Your task to perform on an android device: add a contact in the contacts app Image 0: 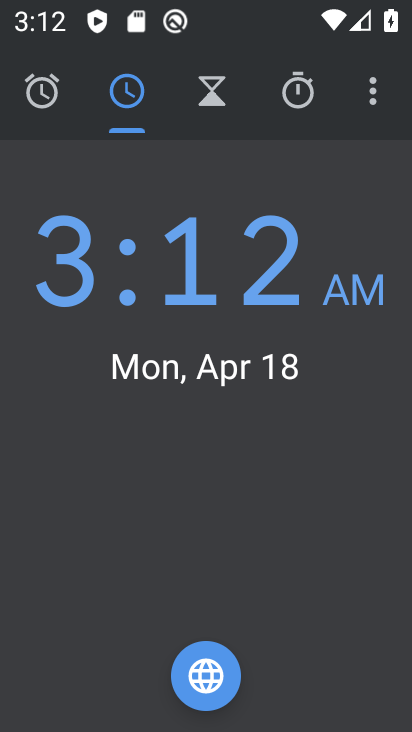
Step 0: press home button
Your task to perform on an android device: add a contact in the contacts app Image 1: 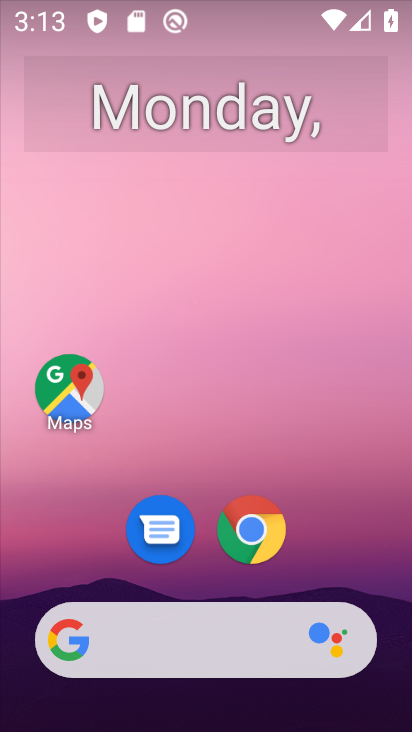
Step 1: drag from (246, 458) to (253, 11)
Your task to perform on an android device: add a contact in the contacts app Image 2: 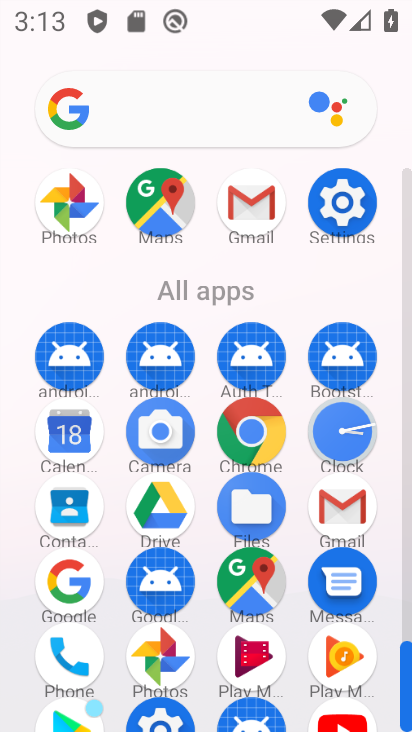
Step 2: click (71, 516)
Your task to perform on an android device: add a contact in the contacts app Image 3: 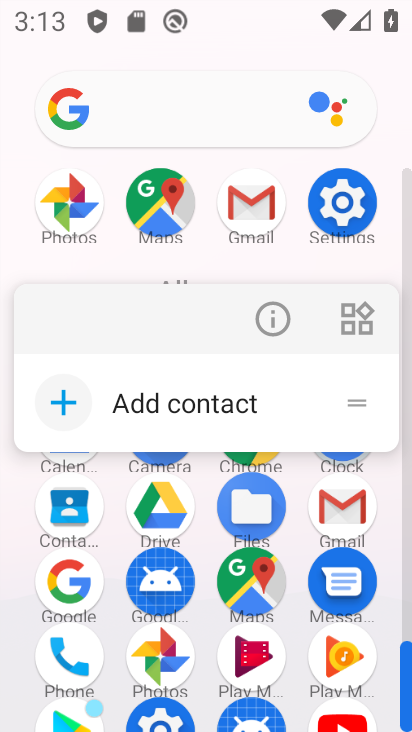
Step 3: click (76, 521)
Your task to perform on an android device: add a contact in the contacts app Image 4: 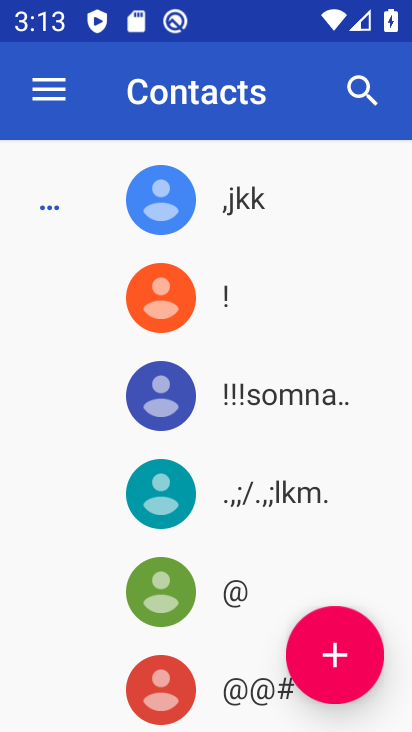
Step 4: click (345, 666)
Your task to perform on an android device: add a contact in the contacts app Image 5: 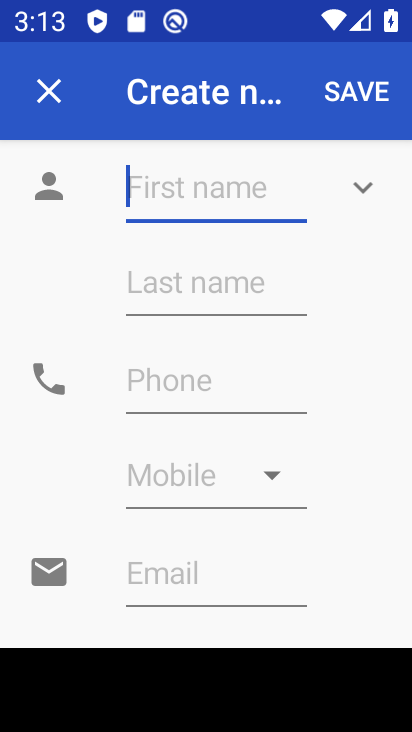
Step 5: type "tangling'"
Your task to perform on an android device: add a contact in the contacts app Image 6: 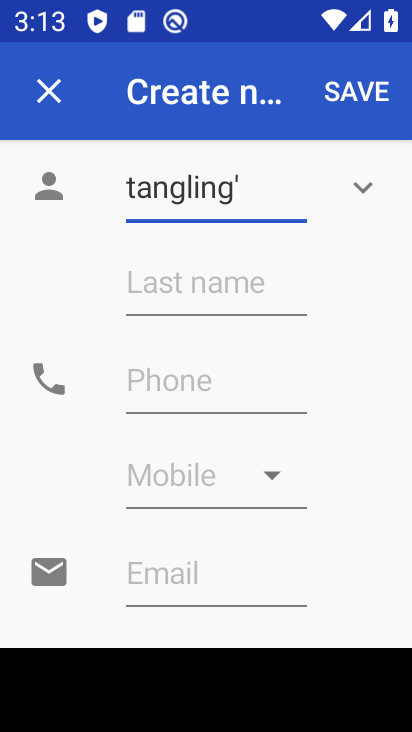
Step 6: click (369, 97)
Your task to perform on an android device: add a contact in the contacts app Image 7: 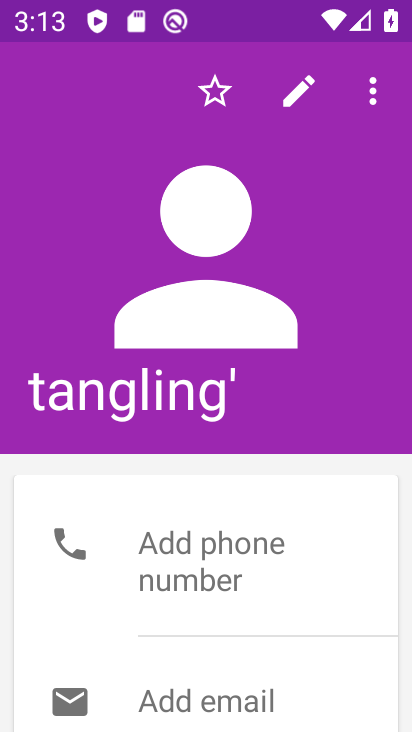
Step 7: task complete